Your task to perform on an android device: toggle notifications settings in the gmail app Image 0: 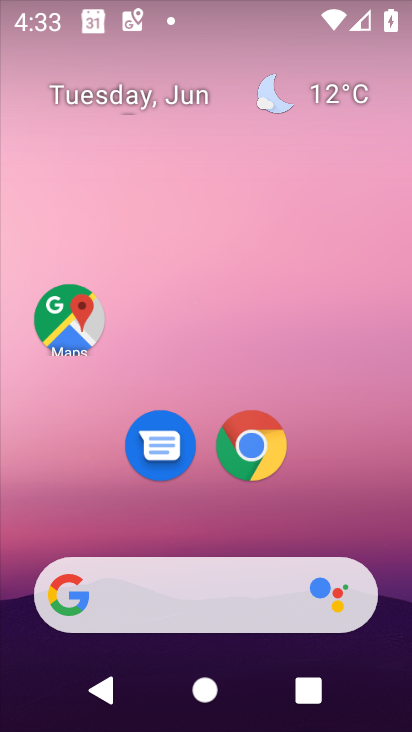
Step 0: drag from (333, 522) to (319, 73)
Your task to perform on an android device: toggle notifications settings in the gmail app Image 1: 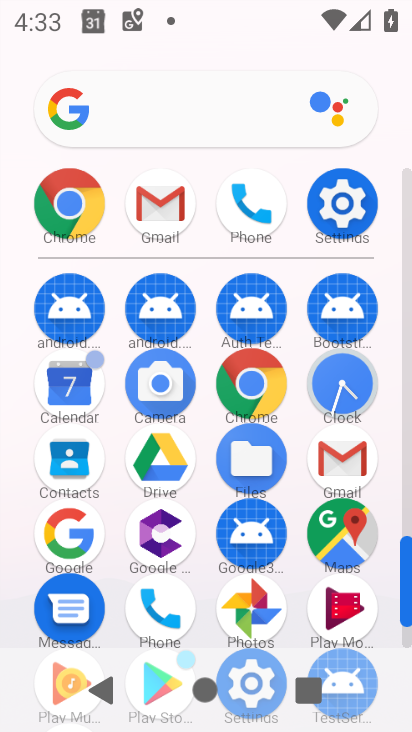
Step 1: click (161, 214)
Your task to perform on an android device: toggle notifications settings in the gmail app Image 2: 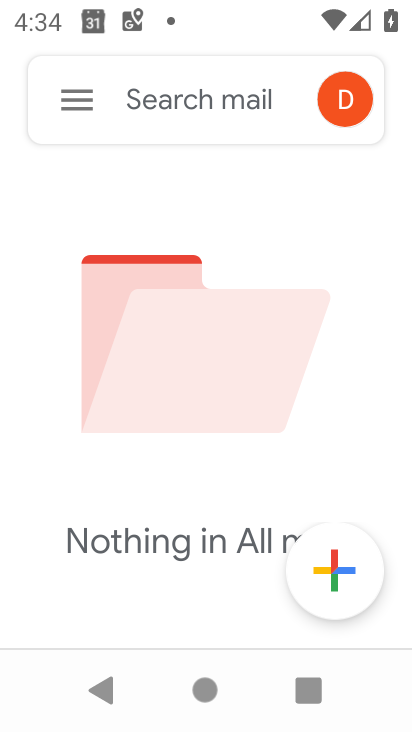
Step 2: click (78, 106)
Your task to perform on an android device: toggle notifications settings in the gmail app Image 3: 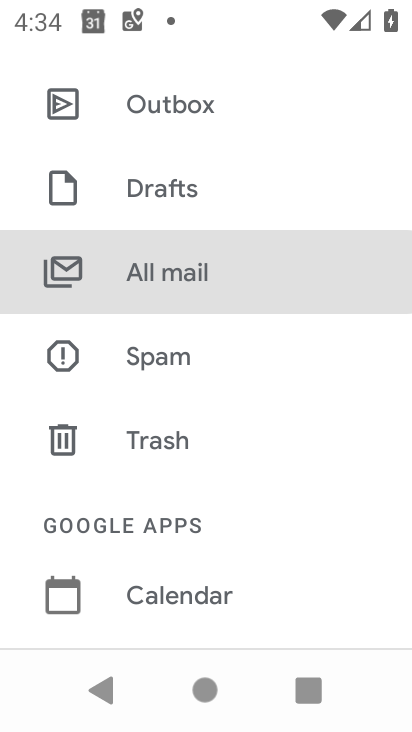
Step 3: drag from (183, 543) to (221, 97)
Your task to perform on an android device: toggle notifications settings in the gmail app Image 4: 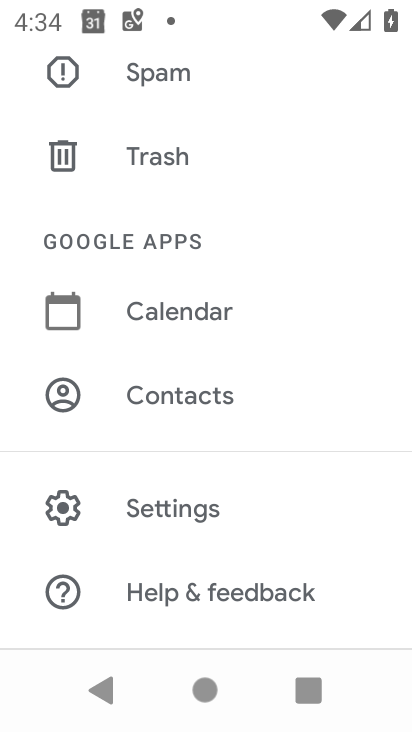
Step 4: click (161, 512)
Your task to perform on an android device: toggle notifications settings in the gmail app Image 5: 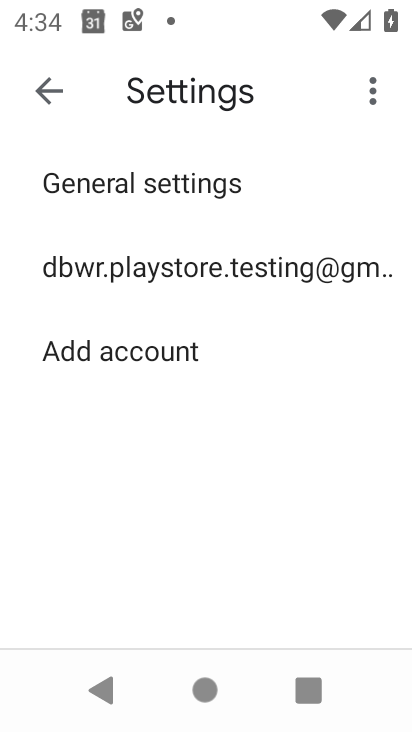
Step 5: click (99, 256)
Your task to perform on an android device: toggle notifications settings in the gmail app Image 6: 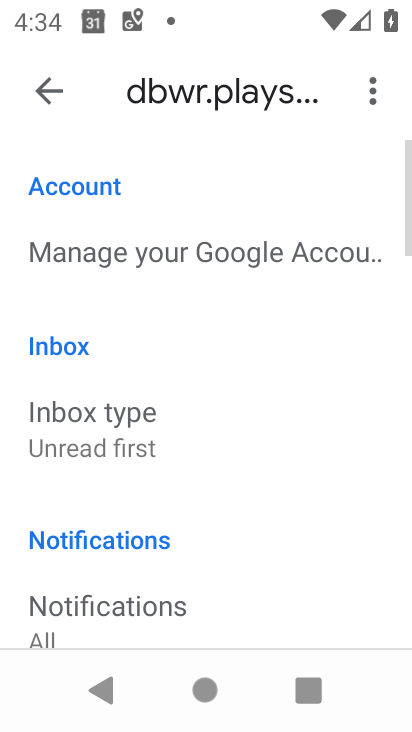
Step 6: click (113, 616)
Your task to perform on an android device: toggle notifications settings in the gmail app Image 7: 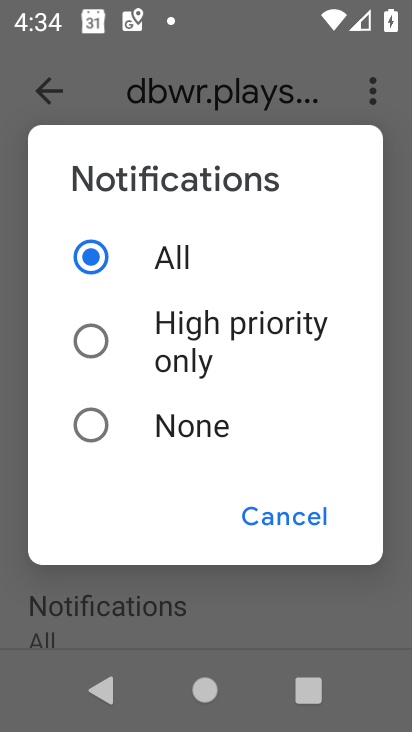
Step 7: click (95, 337)
Your task to perform on an android device: toggle notifications settings in the gmail app Image 8: 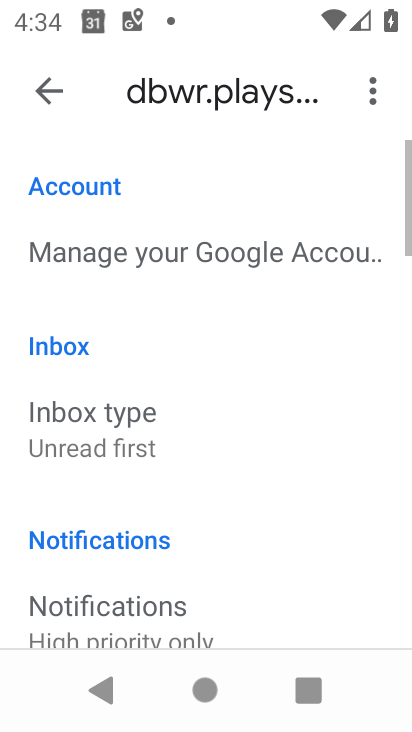
Step 8: task complete